Your task to perform on an android device: add a contact Image 0: 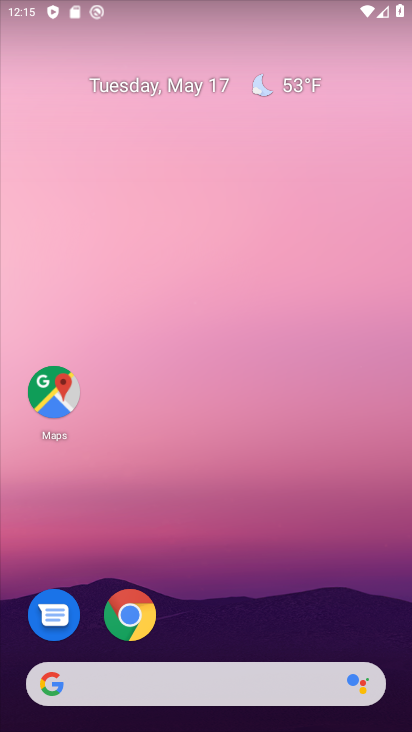
Step 0: drag from (265, 640) to (219, 160)
Your task to perform on an android device: add a contact Image 1: 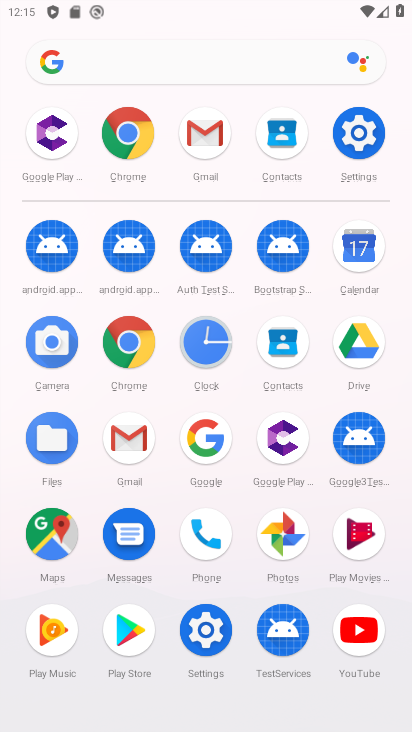
Step 1: click (288, 145)
Your task to perform on an android device: add a contact Image 2: 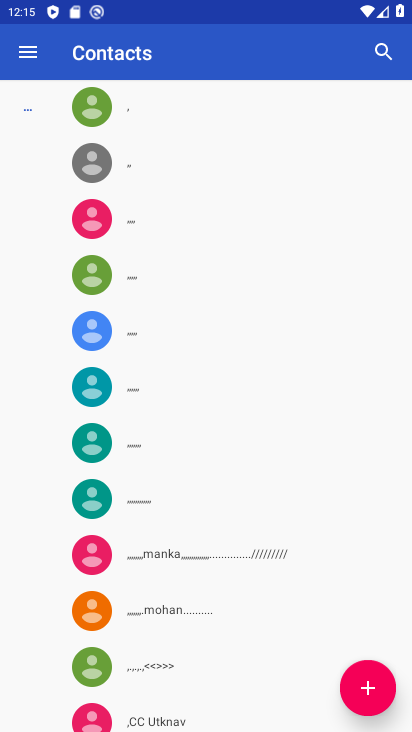
Step 2: click (366, 697)
Your task to perform on an android device: add a contact Image 3: 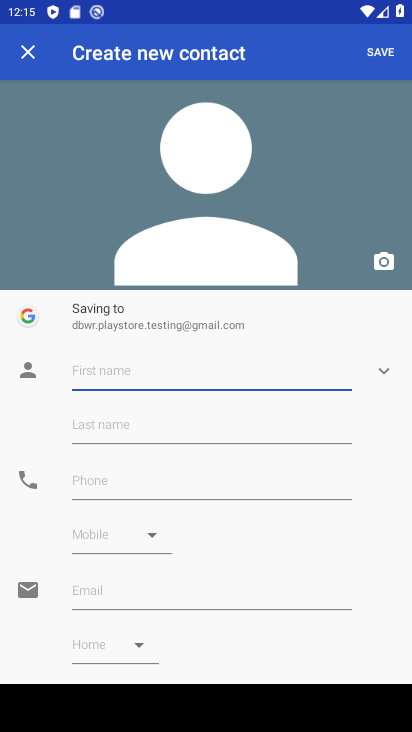
Step 3: type "dasdasdas"
Your task to perform on an android device: add a contact Image 4: 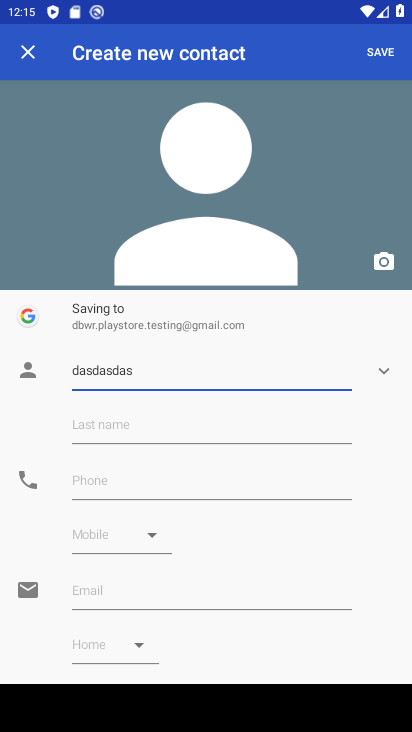
Step 4: click (293, 418)
Your task to perform on an android device: add a contact Image 5: 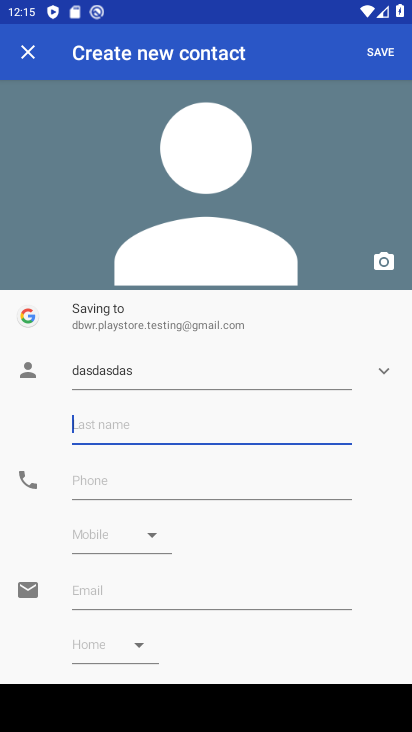
Step 5: type "adasd"
Your task to perform on an android device: add a contact Image 6: 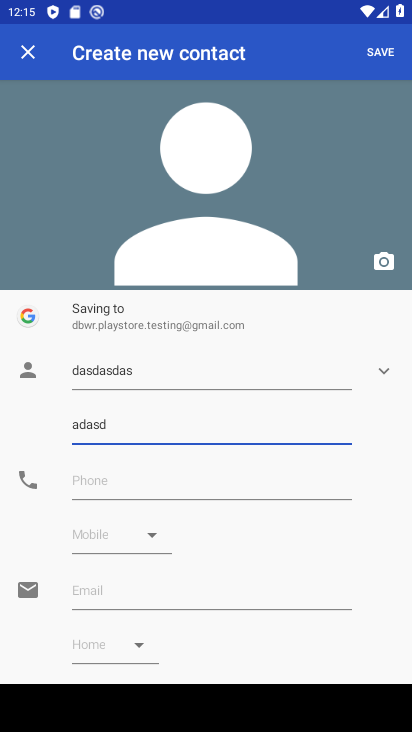
Step 6: click (235, 495)
Your task to perform on an android device: add a contact Image 7: 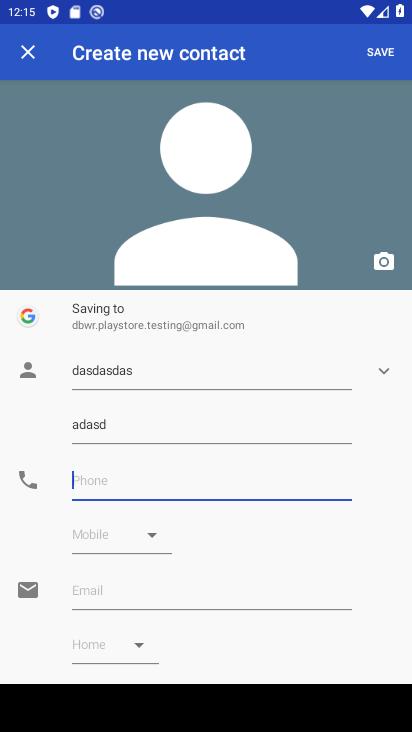
Step 7: type "324234234"
Your task to perform on an android device: add a contact Image 8: 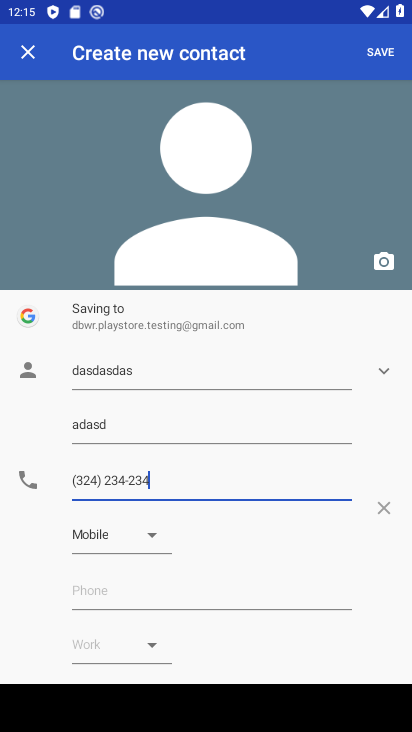
Step 8: click (373, 49)
Your task to perform on an android device: add a contact Image 9: 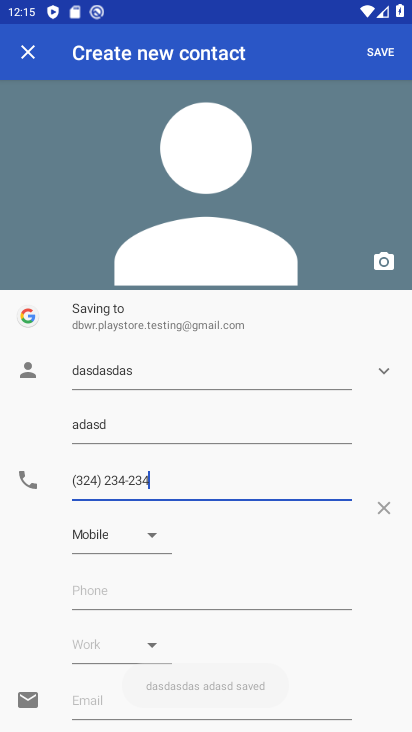
Step 9: task complete